Your task to perform on an android device: Go to Android settings Image 0: 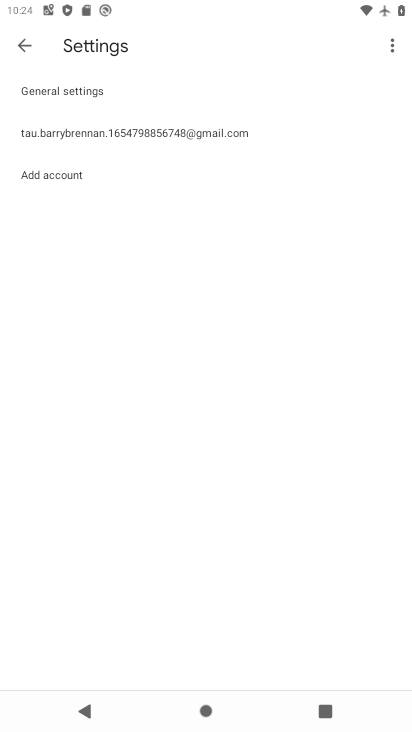
Step 0: press home button
Your task to perform on an android device: Go to Android settings Image 1: 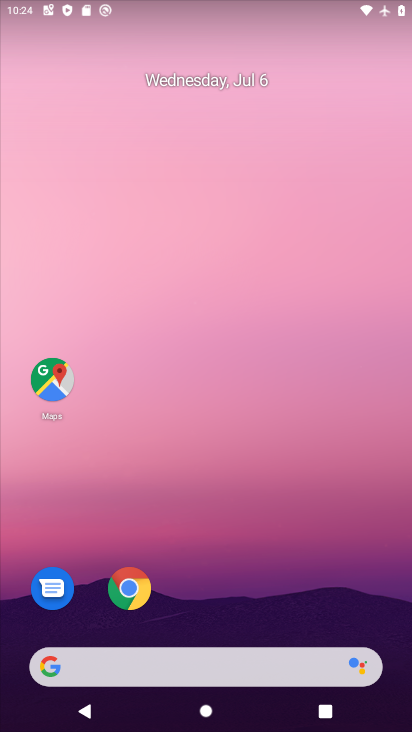
Step 1: drag from (278, 581) to (285, 166)
Your task to perform on an android device: Go to Android settings Image 2: 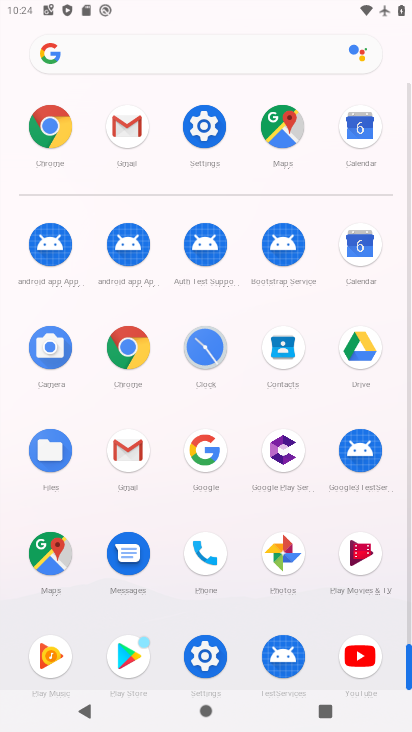
Step 2: click (201, 115)
Your task to perform on an android device: Go to Android settings Image 3: 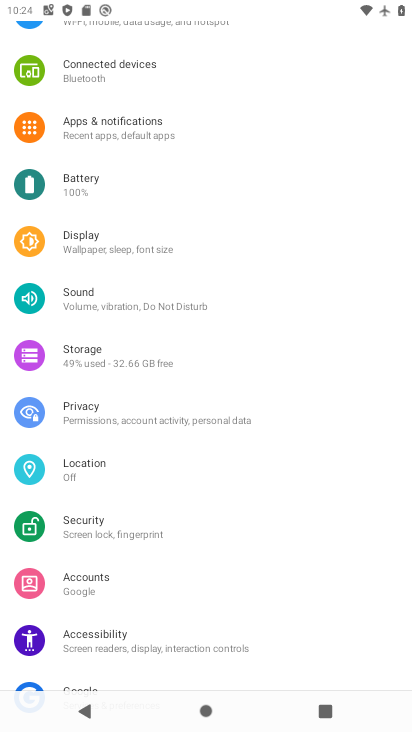
Step 3: task complete